Your task to perform on an android device: Go to Wikipedia Image 0: 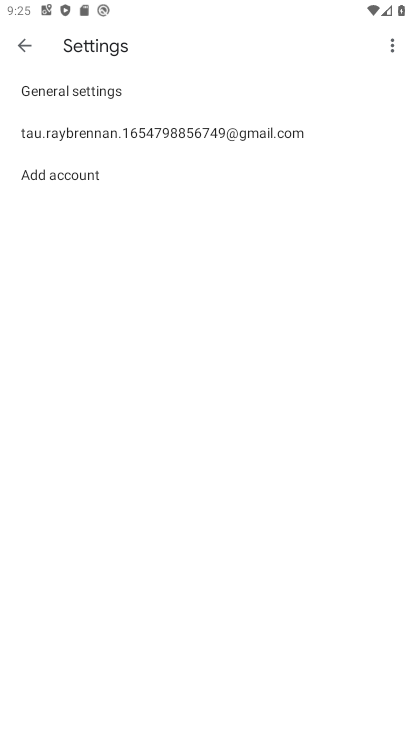
Step 0: press home button
Your task to perform on an android device: Go to Wikipedia Image 1: 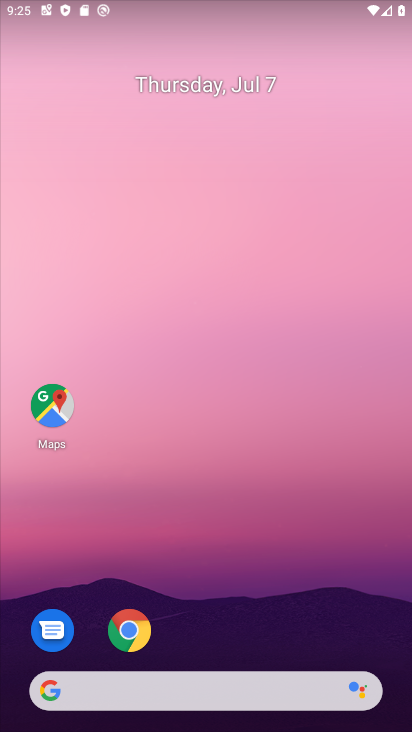
Step 1: click (129, 629)
Your task to perform on an android device: Go to Wikipedia Image 2: 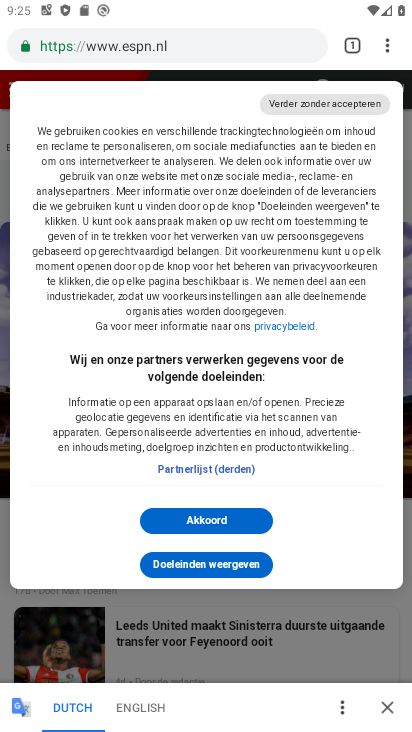
Step 2: click (349, 46)
Your task to perform on an android device: Go to Wikipedia Image 3: 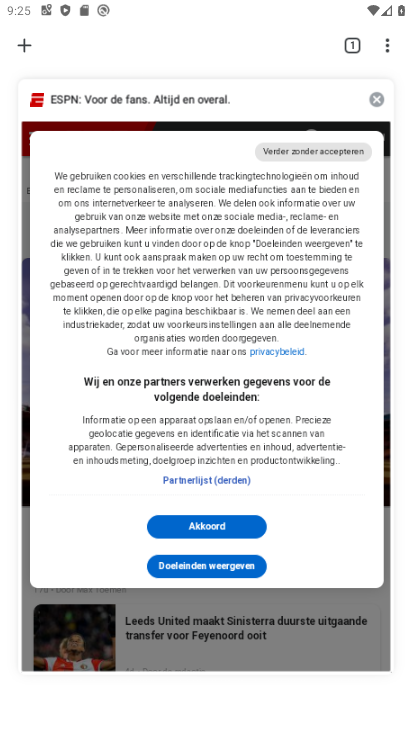
Step 3: click (26, 41)
Your task to perform on an android device: Go to Wikipedia Image 4: 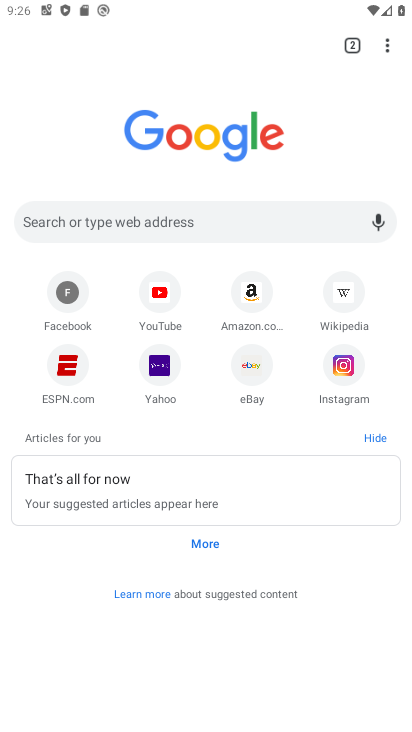
Step 4: click (344, 292)
Your task to perform on an android device: Go to Wikipedia Image 5: 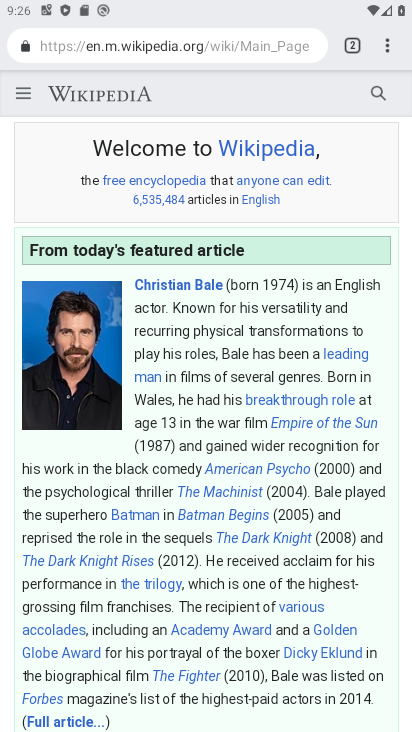
Step 5: task complete